Your task to perform on an android device: empty trash in the gmail app Image 0: 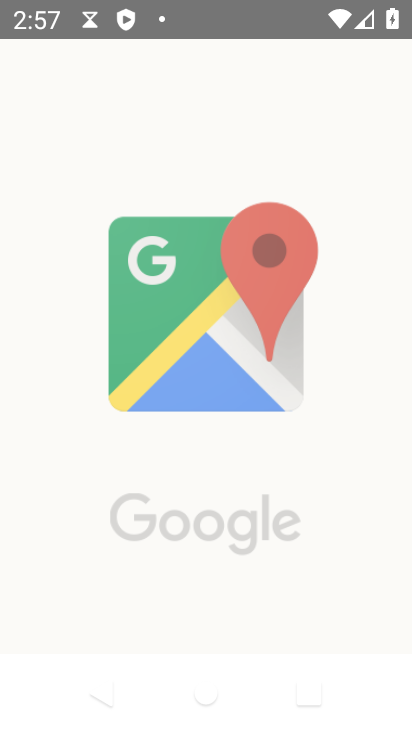
Step 0: drag from (353, 538) to (236, 15)
Your task to perform on an android device: empty trash in the gmail app Image 1: 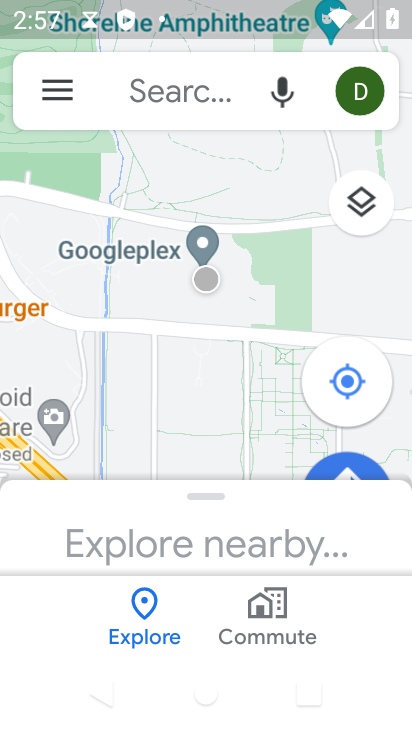
Step 1: press back button
Your task to perform on an android device: empty trash in the gmail app Image 2: 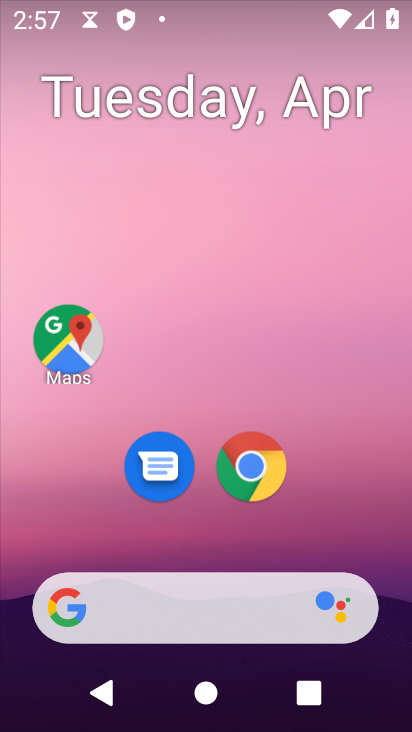
Step 2: drag from (329, 534) to (207, 16)
Your task to perform on an android device: empty trash in the gmail app Image 3: 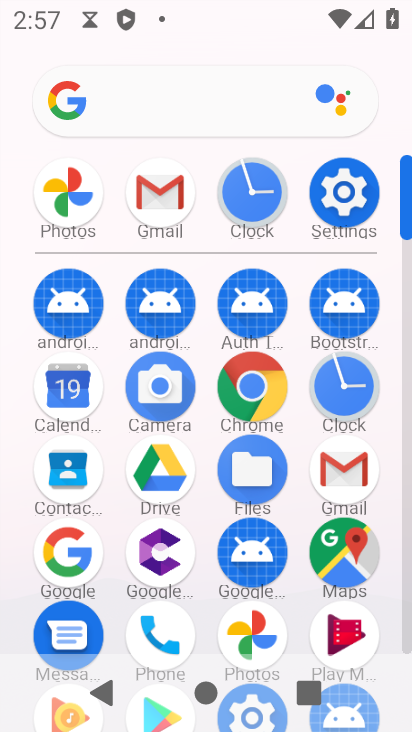
Step 3: click (154, 182)
Your task to perform on an android device: empty trash in the gmail app Image 4: 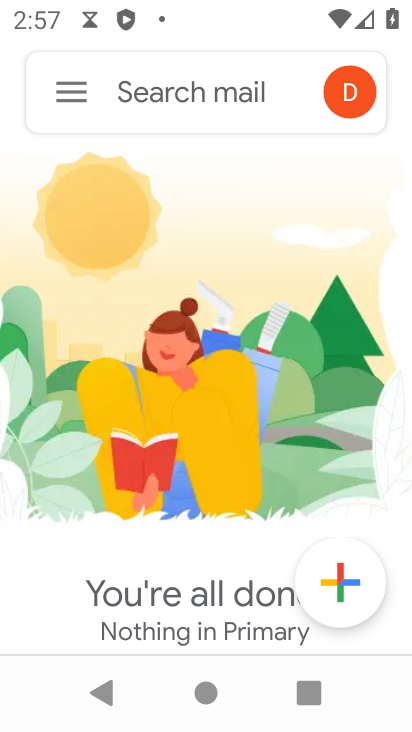
Step 4: click (65, 102)
Your task to perform on an android device: empty trash in the gmail app Image 5: 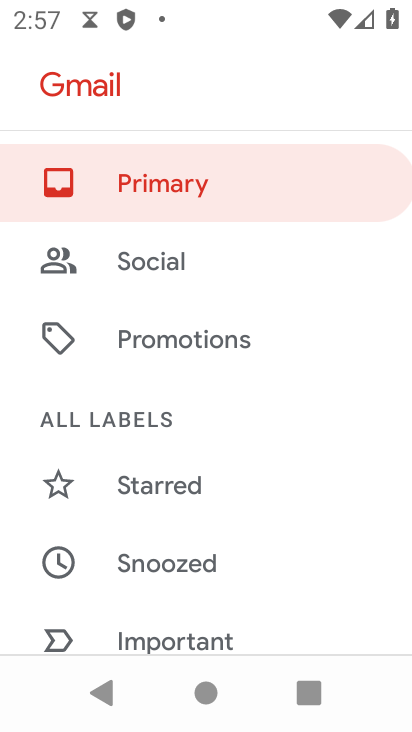
Step 5: drag from (212, 476) to (184, 160)
Your task to perform on an android device: empty trash in the gmail app Image 6: 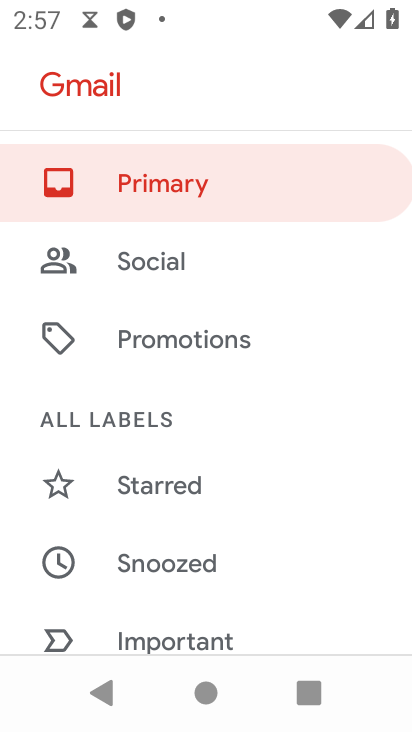
Step 6: drag from (261, 528) to (238, 139)
Your task to perform on an android device: empty trash in the gmail app Image 7: 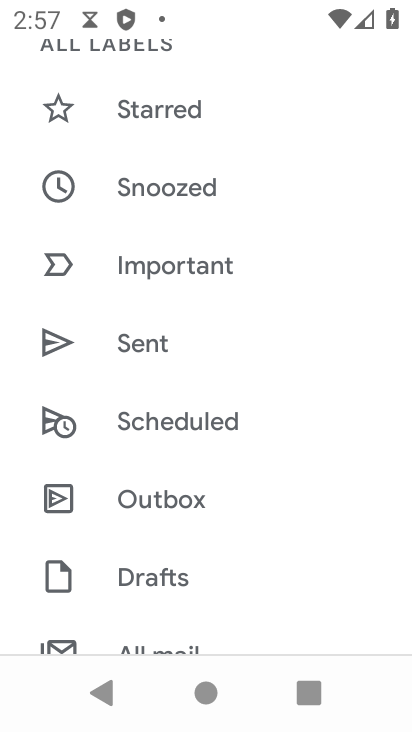
Step 7: drag from (239, 291) to (231, 56)
Your task to perform on an android device: empty trash in the gmail app Image 8: 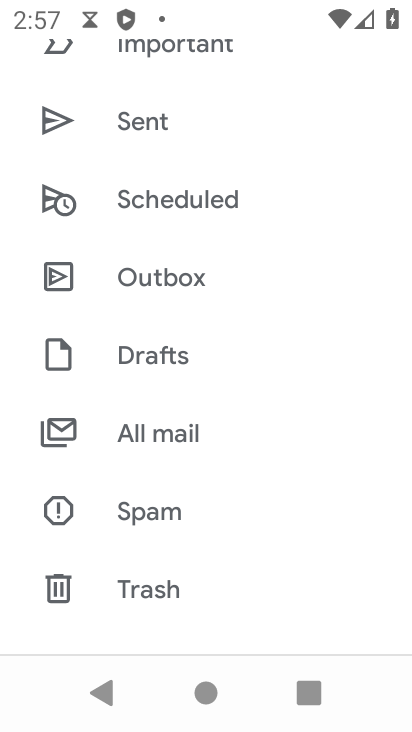
Step 8: drag from (280, 512) to (245, 182)
Your task to perform on an android device: empty trash in the gmail app Image 9: 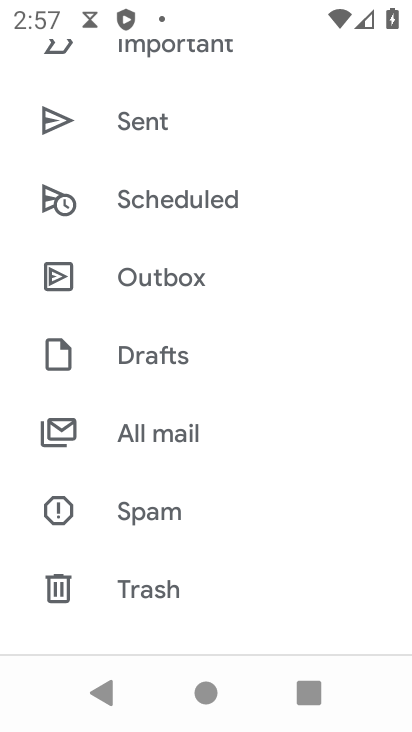
Step 9: click (185, 584)
Your task to perform on an android device: empty trash in the gmail app Image 10: 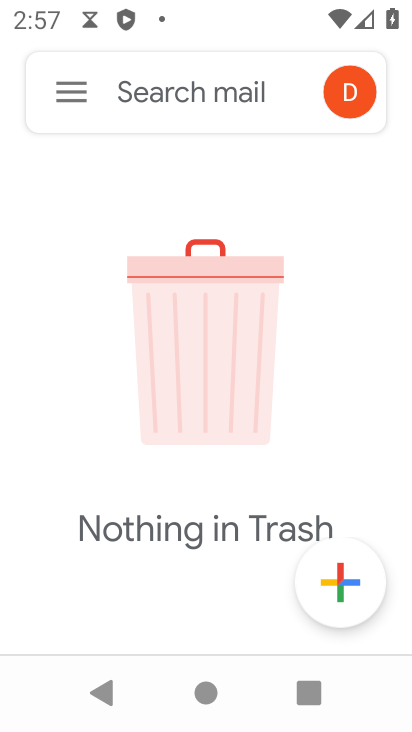
Step 10: task complete